Your task to perform on an android device: When is my next appointment? Image 0: 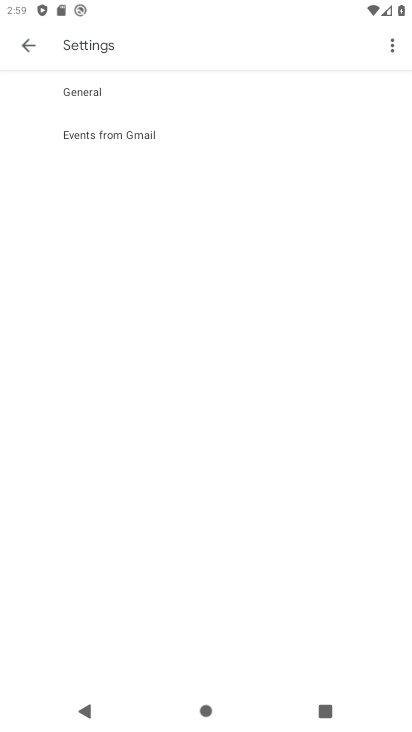
Step 0: press home button
Your task to perform on an android device: When is my next appointment? Image 1: 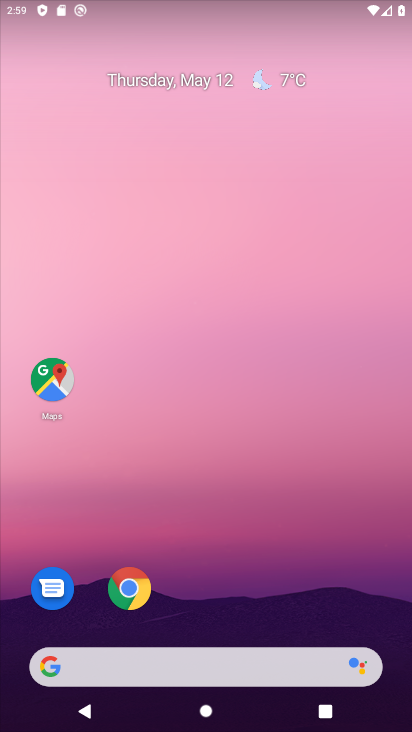
Step 1: drag from (319, 564) to (379, 173)
Your task to perform on an android device: When is my next appointment? Image 2: 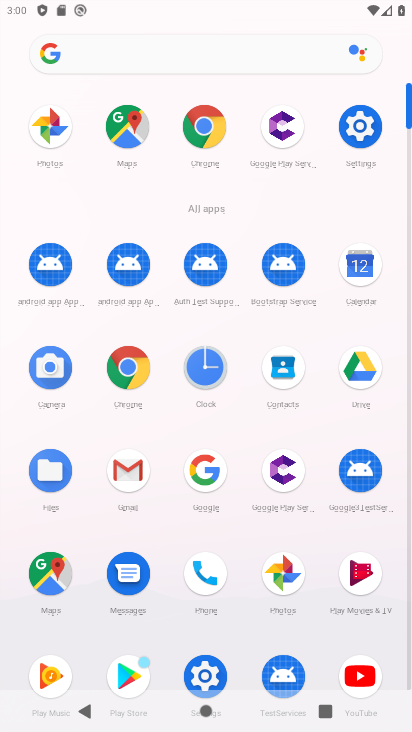
Step 2: click (373, 254)
Your task to perform on an android device: When is my next appointment? Image 3: 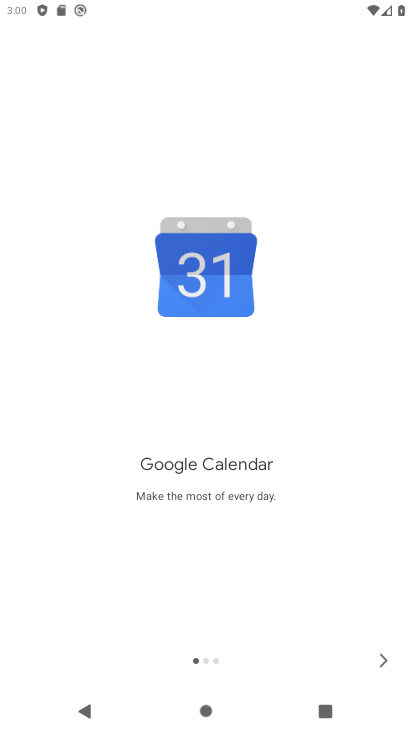
Step 3: click (383, 650)
Your task to perform on an android device: When is my next appointment? Image 4: 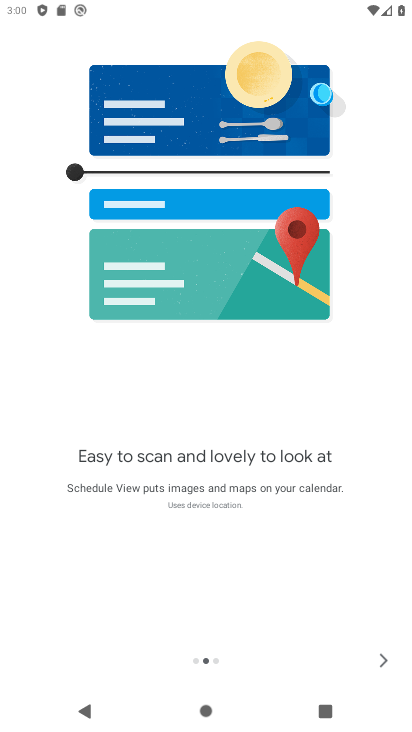
Step 4: click (385, 658)
Your task to perform on an android device: When is my next appointment? Image 5: 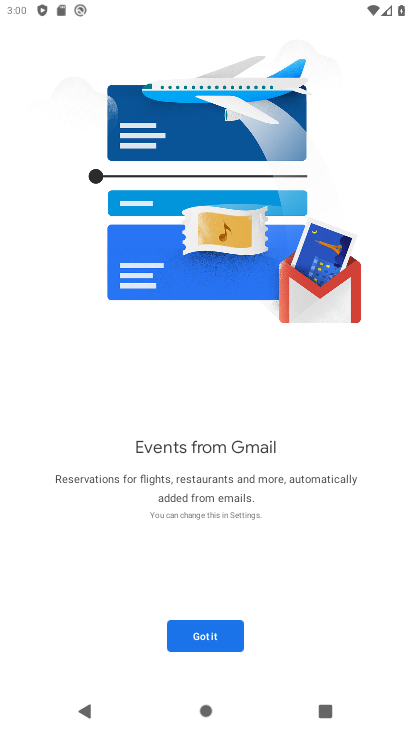
Step 5: click (211, 635)
Your task to perform on an android device: When is my next appointment? Image 6: 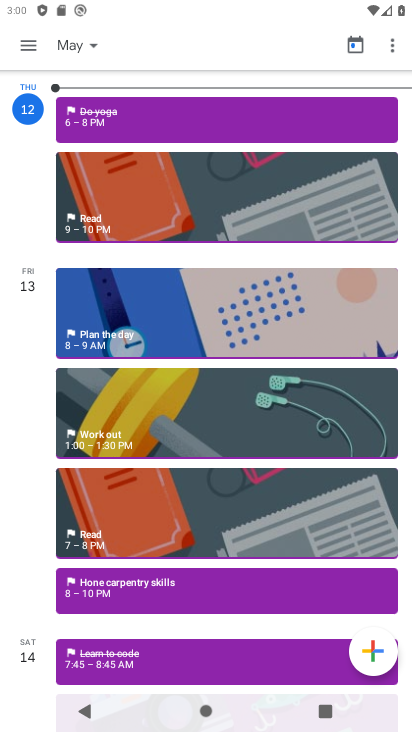
Step 6: click (76, 48)
Your task to perform on an android device: When is my next appointment? Image 7: 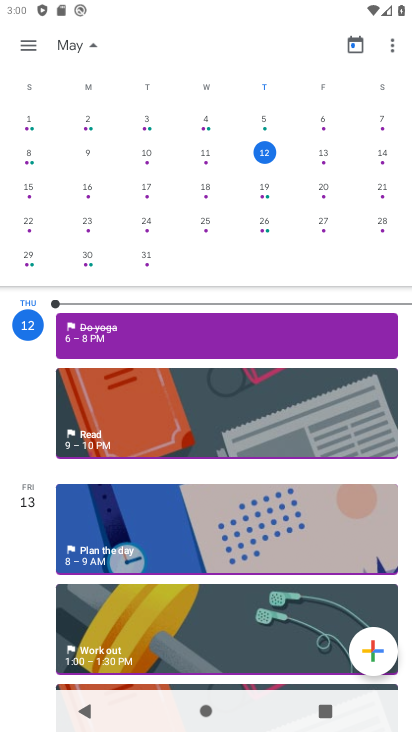
Step 7: click (282, 154)
Your task to perform on an android device: When is my next appointment? Image 8: 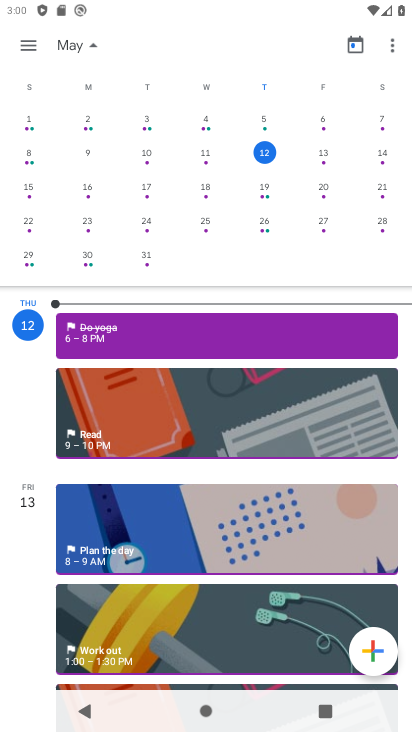
Step 8: click (270, 146)
Your task to perform on an android device: When is my next appointment? Image 9: 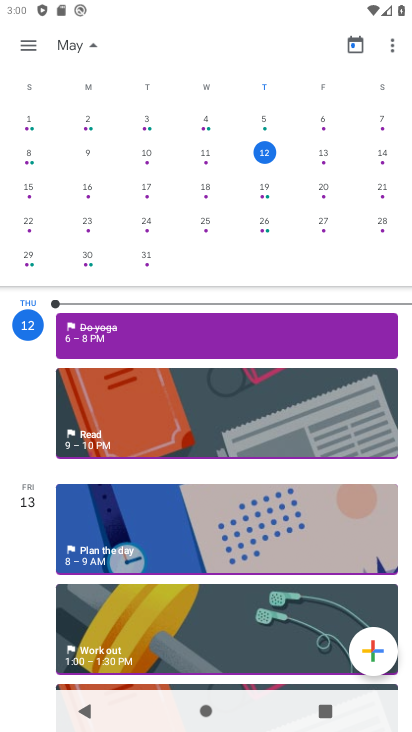
Step 9: task complete